Your task to perform on an android device: Search for Italian restaurants on Maps Image 0: 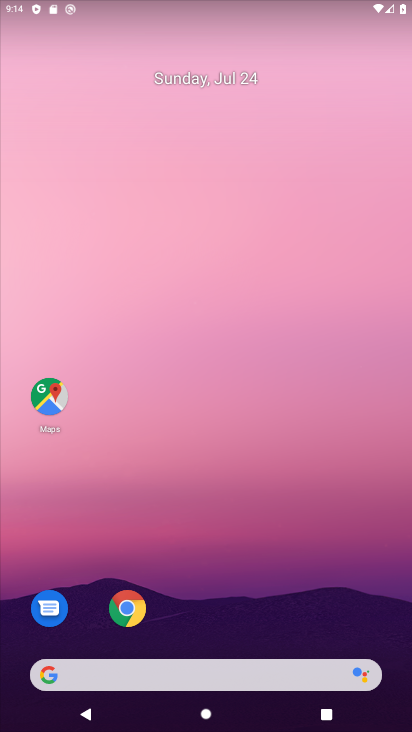
Step 0: press home button
Your task to perform on an android device: Search for Italian restaurants on Maps Image 1: 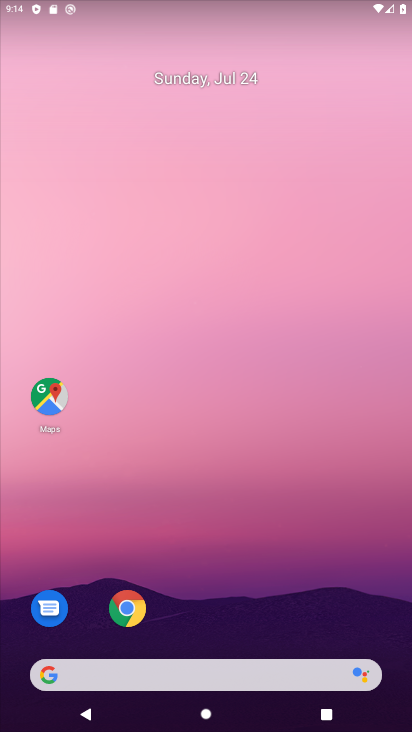
Step 1: click (49, 399)
Your task to perform on an android device: Search for Italian restaurants on Maps Image 2: 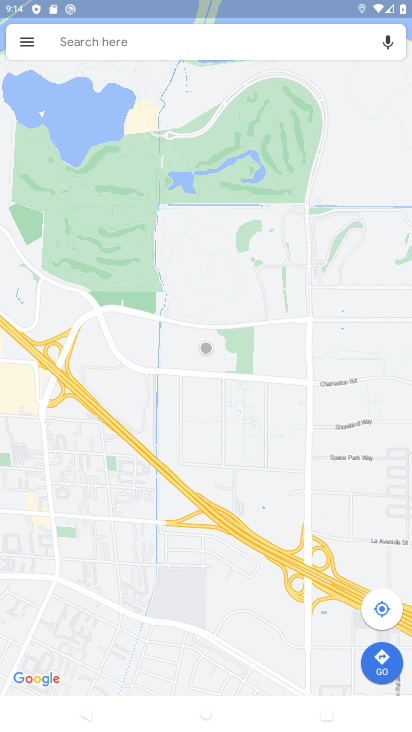
Step 2: type " Italian restaurants"
Your task to perform on an android device: Search for Italian restaurants on Maps Image 3: 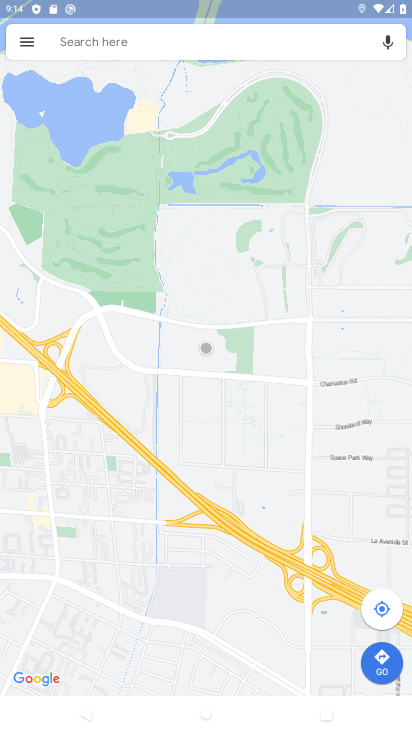
Step 3: click (177, 43)
Your task to perform on an android device: Search for Italian restaurants on Maps Image 4: 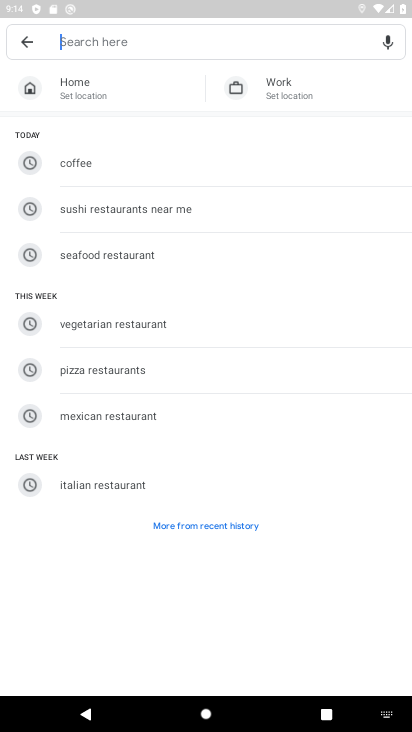
Step 4: click (130, 484)
Your task to perform on an android device: Search for Italian restaurants on Maps Image 5: 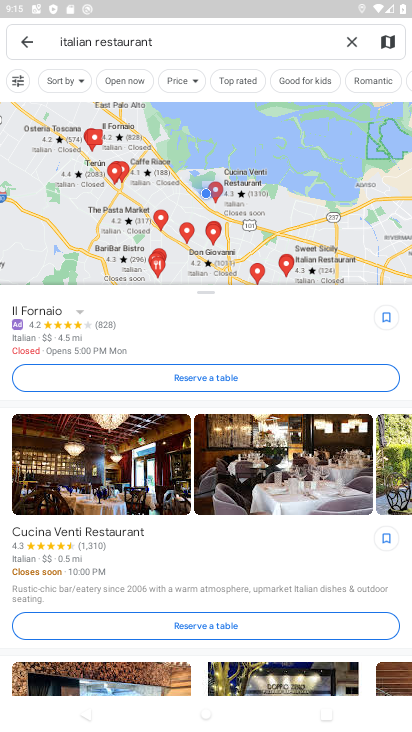
Step 5: task complete